Your task to perform on an android device: View the shopping cart on newegg.com. Image 0: 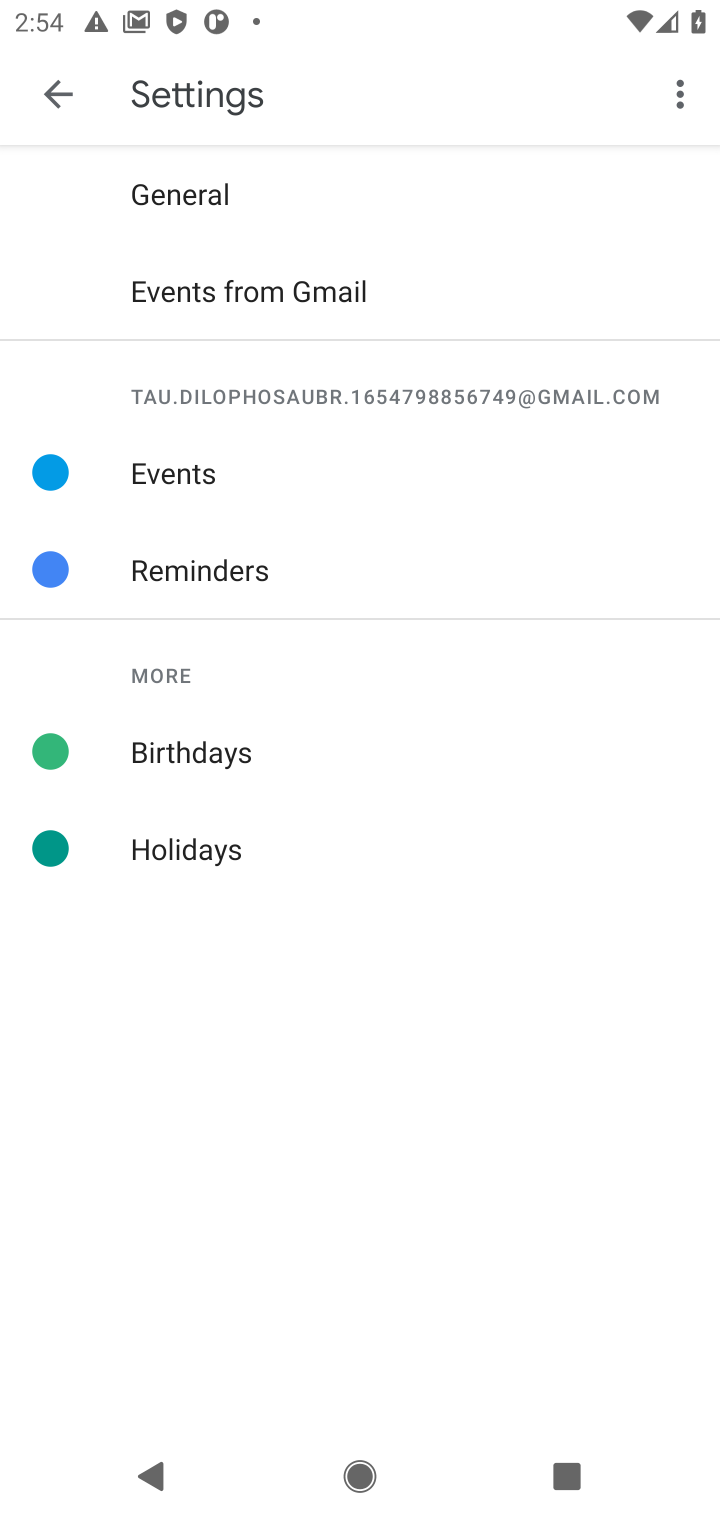
Step 0: press home button
Your task to perform on an android device: View the shopping cart on newegg.com. Image 1: 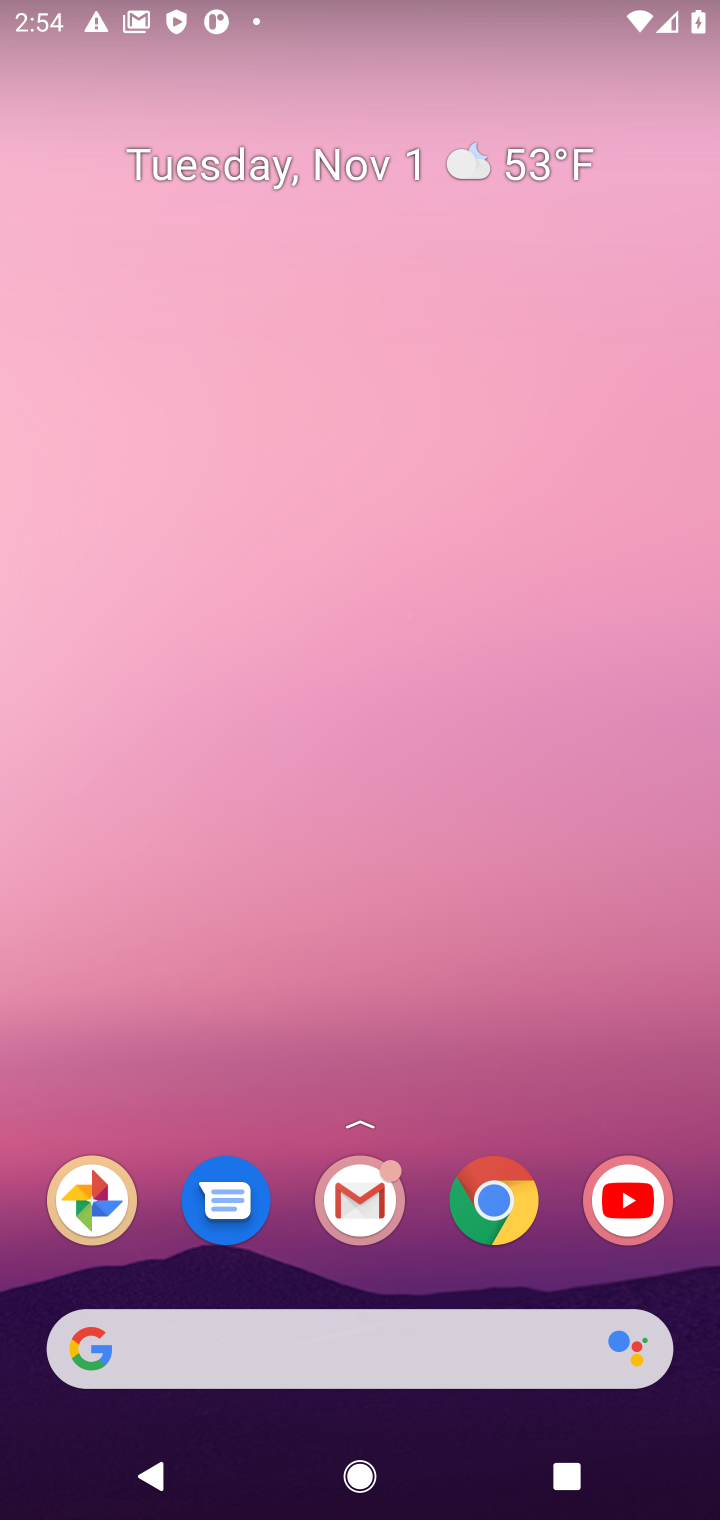
Step 1: click (82, 1353)
Your task to perform on an android device: View the shopping cart on newegg.com. Image 2: 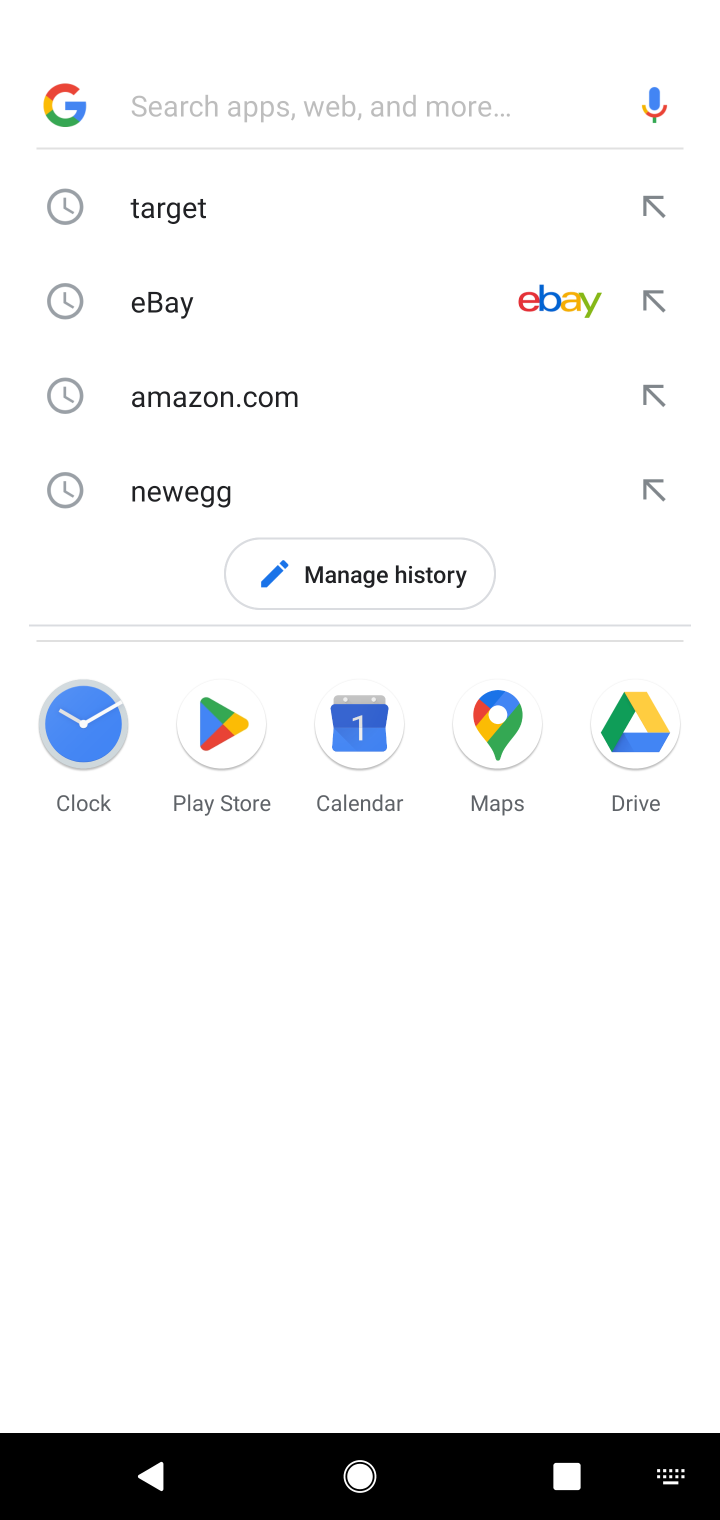
Step 2: click (166, 484)
Your task to perform on an android device: View the shopping cart on newegg.com. Image 3: 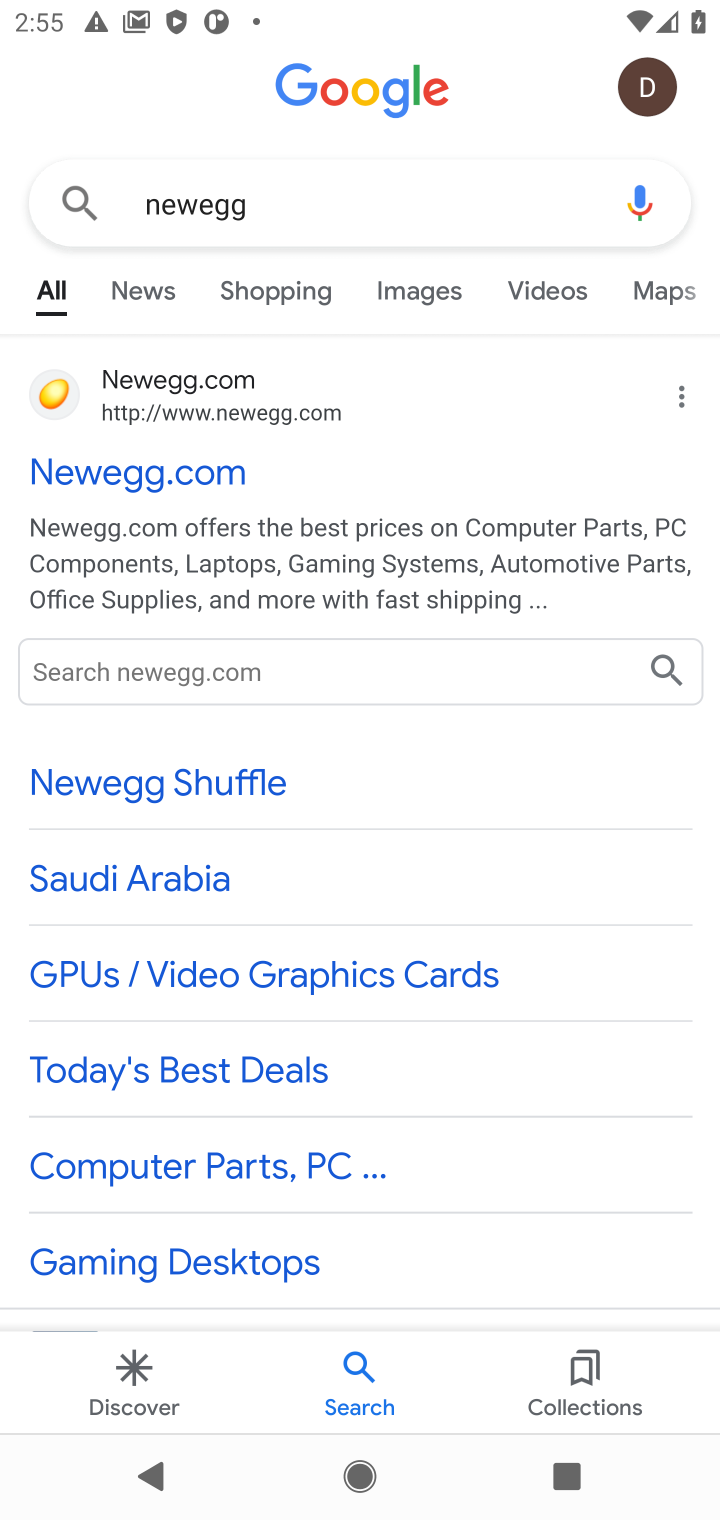
Step 3: click (149, 479)
Your task to perform on an android device: View the shopping cart on newegg.com. Image 4: 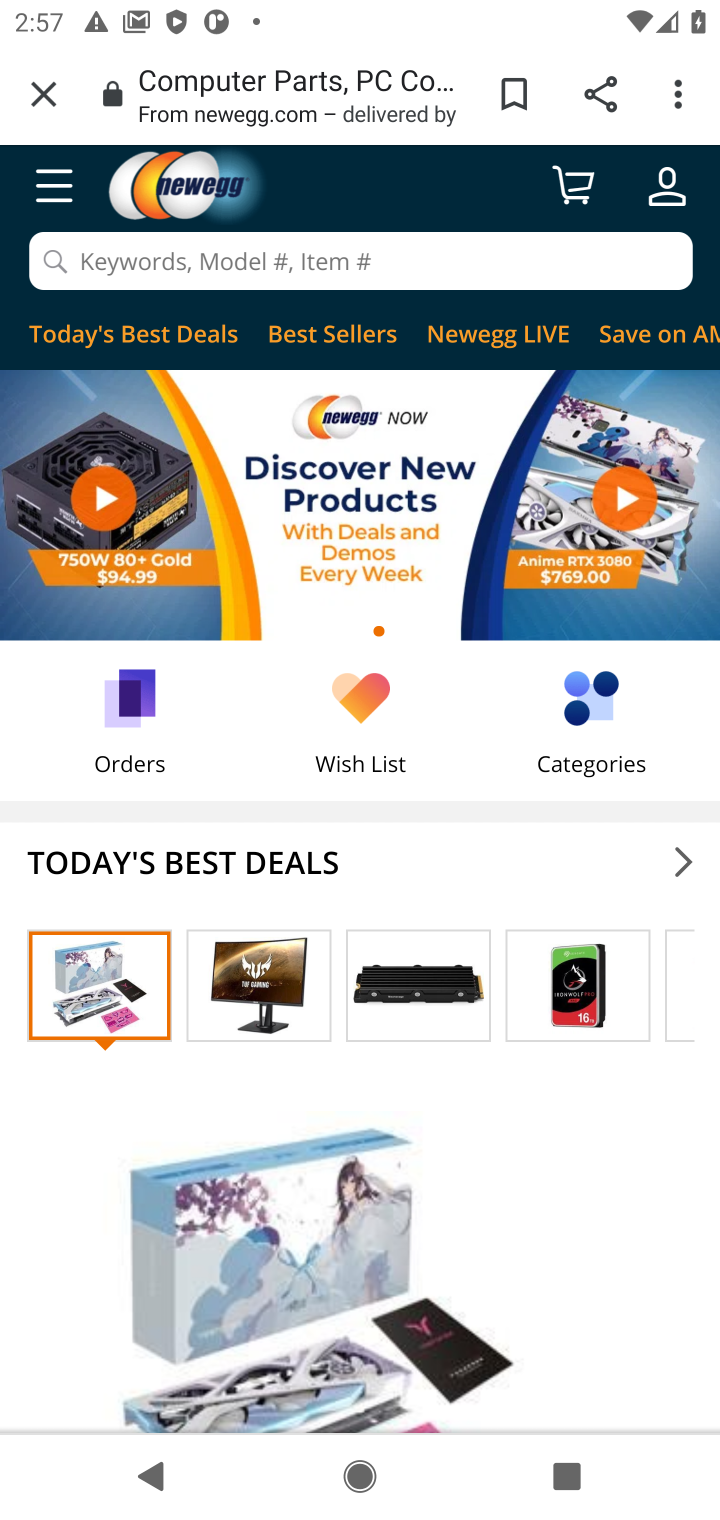
Step 4: task complete